Your task to perform on an android device: check out phone information Image 0: 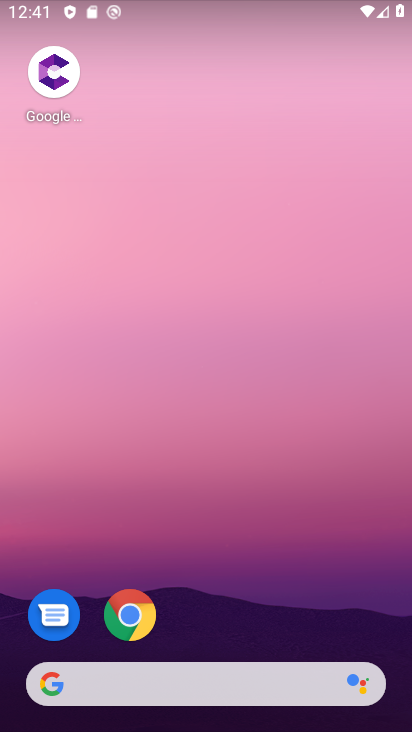
Step 0: drag from (225, 656) to (313, 111)
Your task to perform on an android device: check out phone information Image 1: 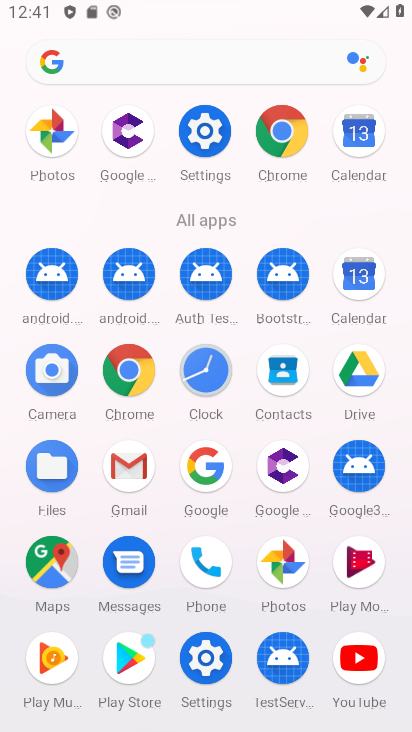
Step 1: click (210, 664)
Your task to perform on an android device: check out phone information Image 2: 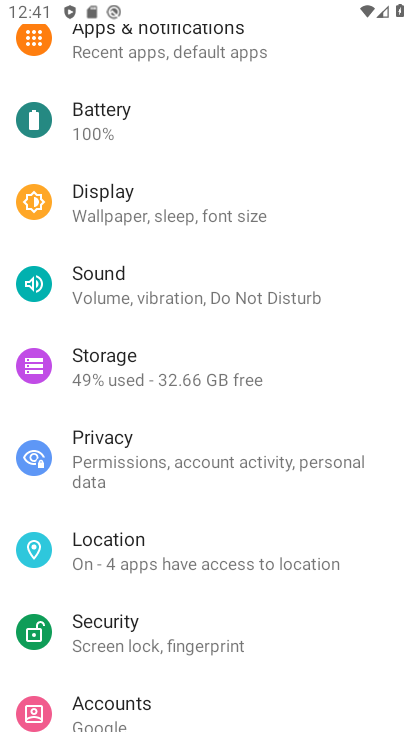
Step 2: drag from (219, 500) to (268, 174)
Your task to perform on an android device: check out phone information Image 3: 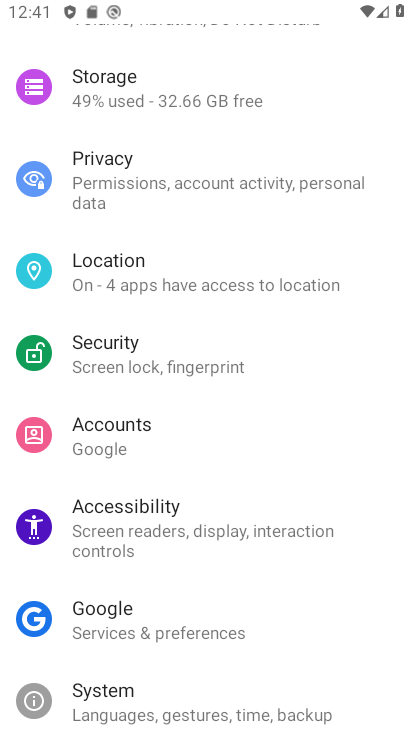
Step 3: drag from (216, 632) to (276, 237)
Your task to perform on an android device: check out phone information Image 4: 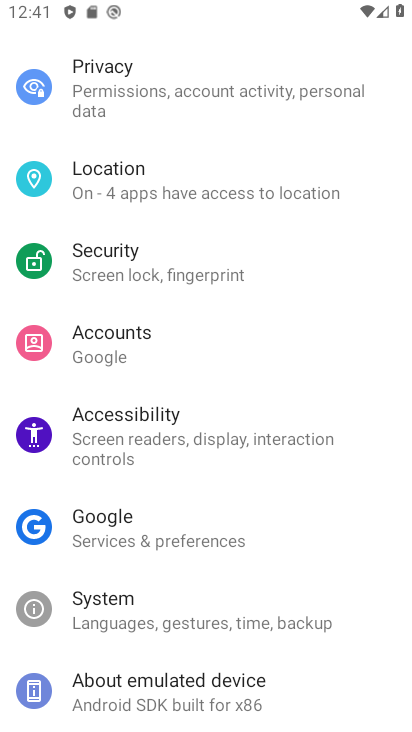
Step 4: click (176, 681)
Your task to perform on an android device: check out phone information Image 5: 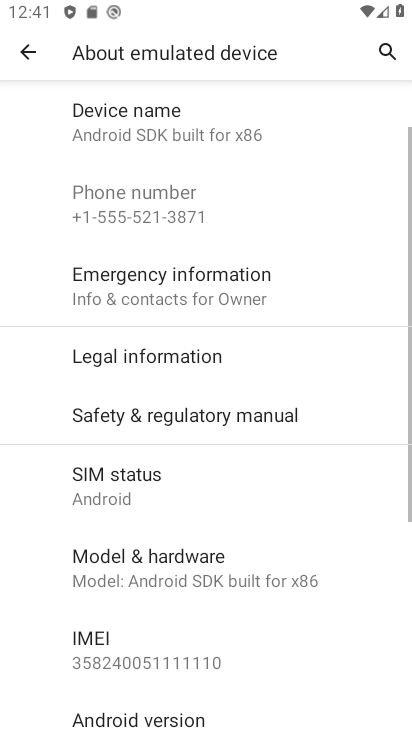
Step 5: task complete